Your task to perform on an android device: Open Yahoo.com Image 0: 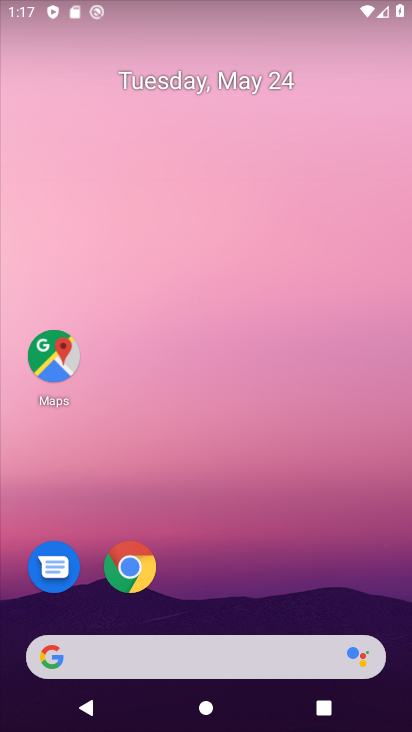
Step 0: click (137, 572)
Your task to perform on an android device: Open Yahoo.com Image 1: 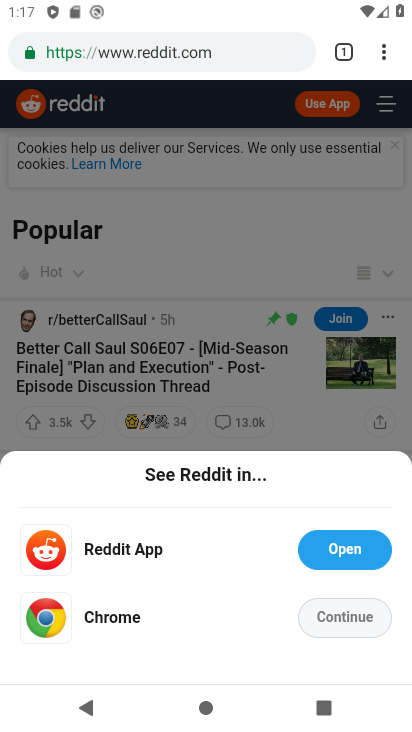
Step 1: click (213, 56)
Your task to perform on an android device: Open Yahoo.com Image 2: 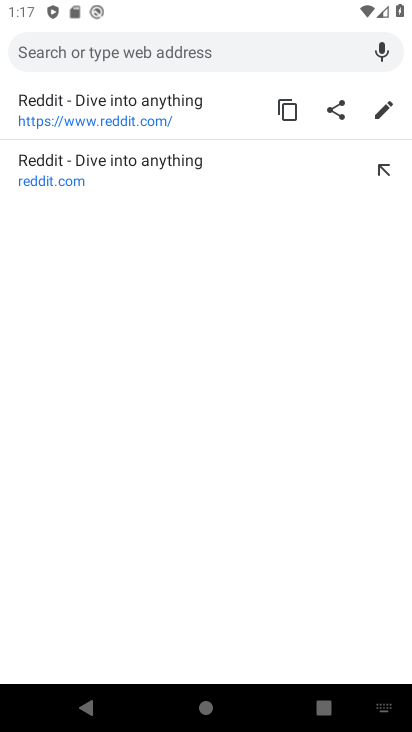
Step 2: type "yahoo.com"
Your task to perform on an android device: Open Yahoo.com Image 3: 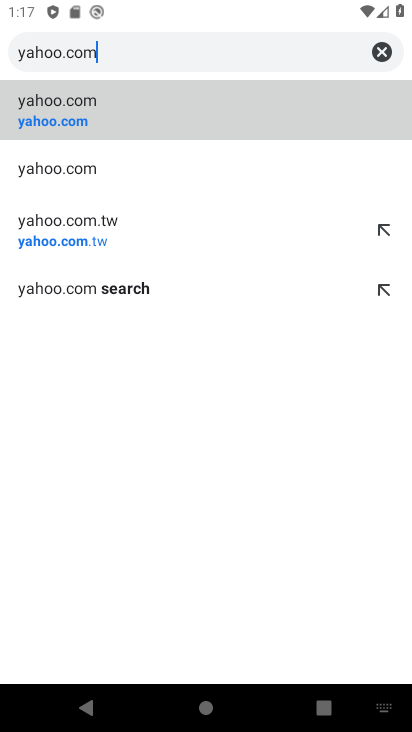
Step 3: click (134, 115)
Your task to perform on an android device: Open Yahoo.com Image 4: 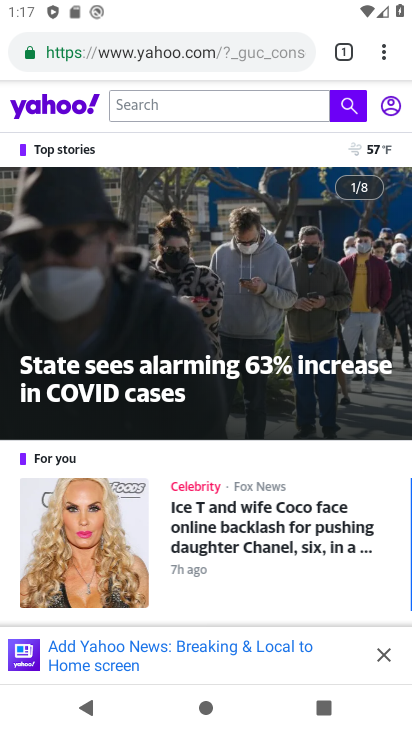
Step 4: task complete